Your task to perform on an android device: delete the emails in spam in the gmail app Image 0: 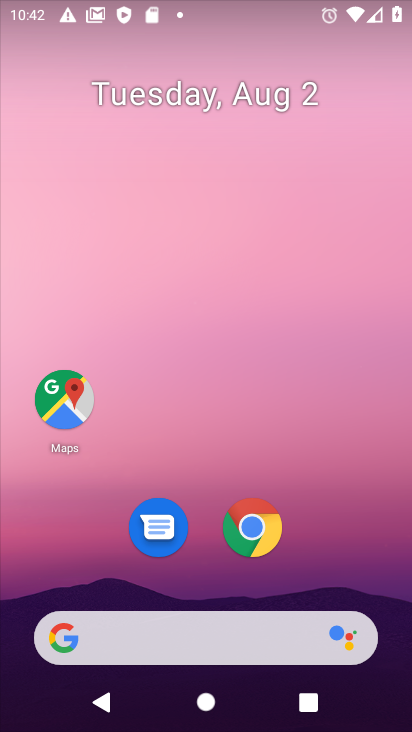
Step 0: drag from (205, 561) to (228, 57)
Your task to perform on an android device: delete the emails in spam in the gmail app Image 1: 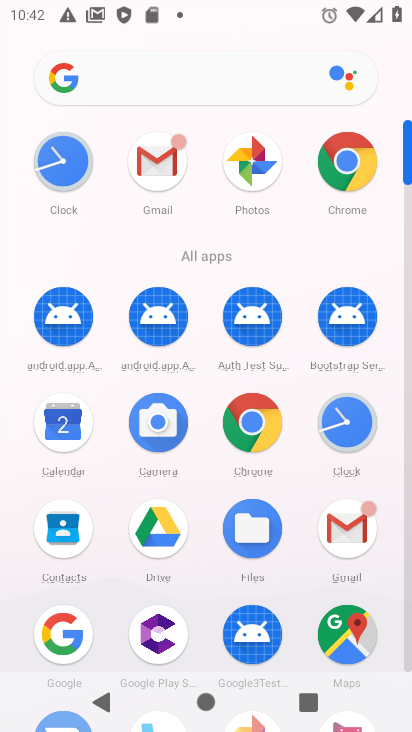
Step 1: click (154, 152)
Your task to perform on an android device: delete the emails in spam in the gmail app Image 2: 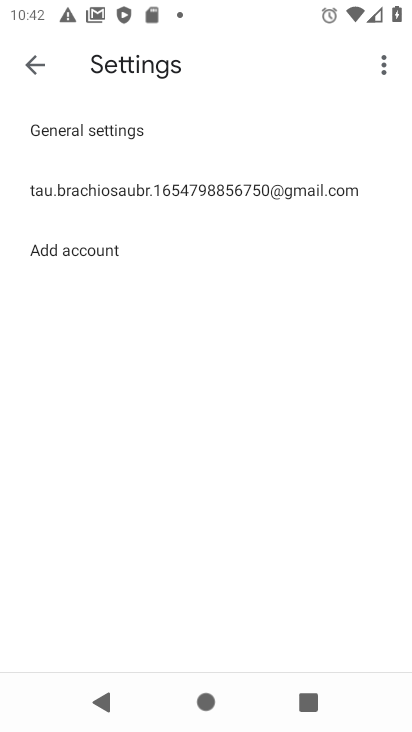
Step 2: click (42, 59)
Your task to perform on an android device: delete the emails in spam in the gmail app Image 3: 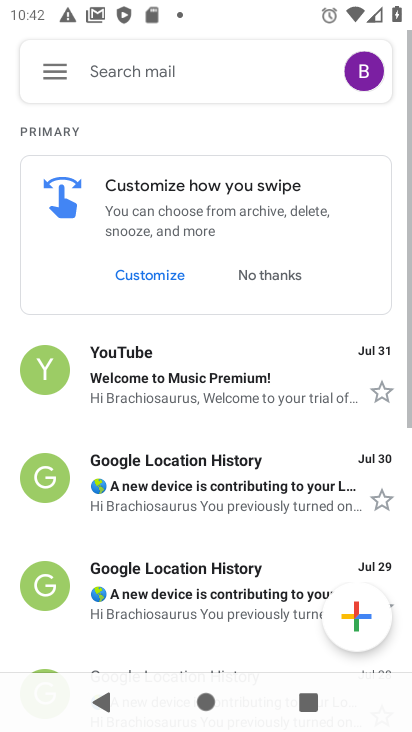
Step 3: click (49, 63)
Your task to perform on an android device: delete the emails in spam in the gmail app Image 4: 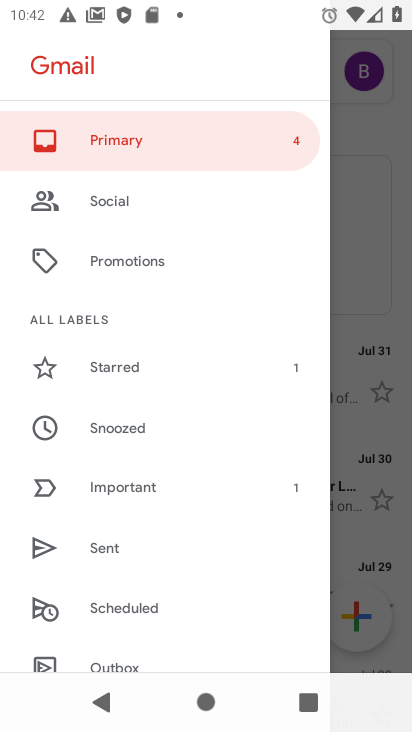
Step 4: drag from (143, 623) to (133, 162)
Your task to perform on an android device: delete the emails in spam in the gmail app Image 5: 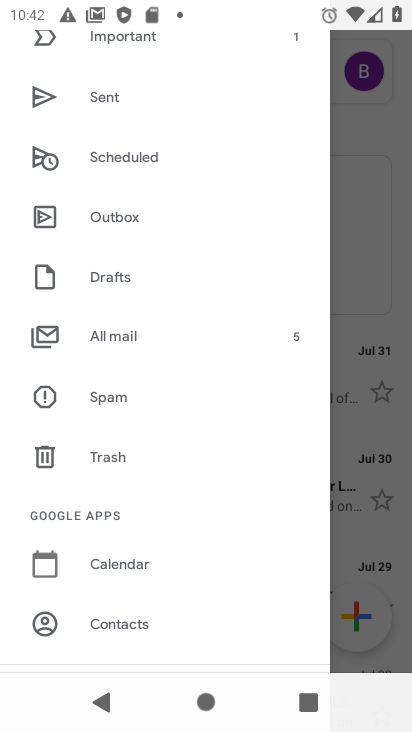
Step 5: click (107, 391)
Your task to perform on an android device: delete the emails in spam in the gmail app Image 6: 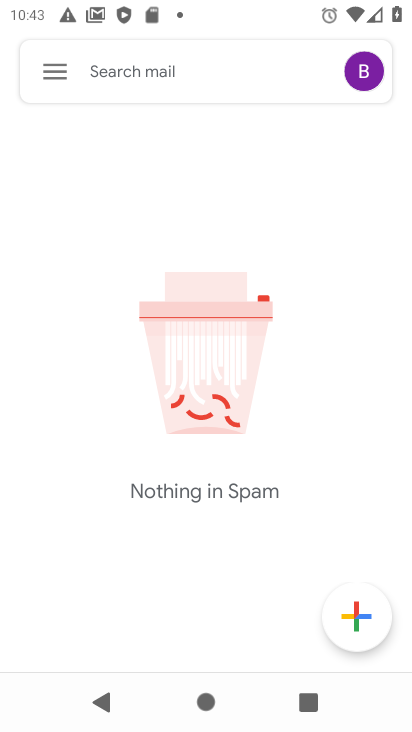
Step 6: task complete